Your task to perform on an android device: open a new tab in the chrome app Image 0: 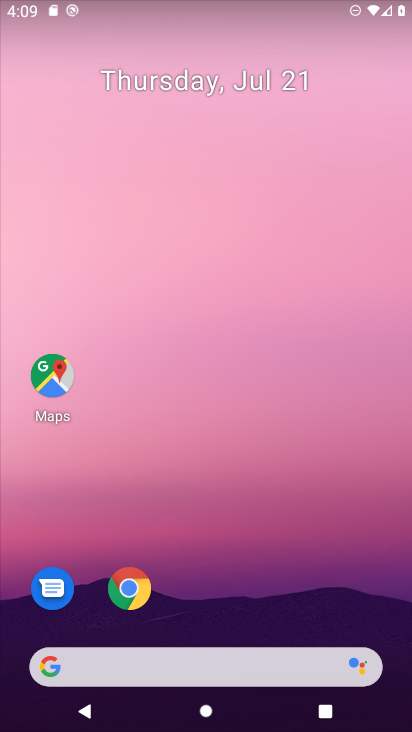
Step 0: drag from (199, 649) to (217, 91)
Your task to perform on an android device: open a new tab in the chrome app Image 1: 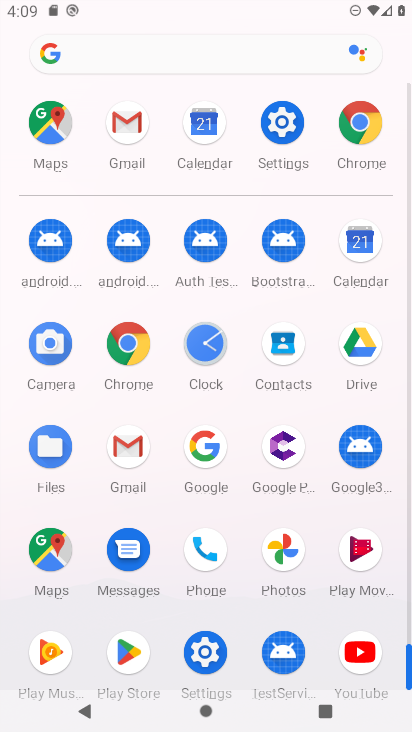
Step 1: click (129, 370)
Your task to perform on an android device: open a new tab in the chrome app Image 2: 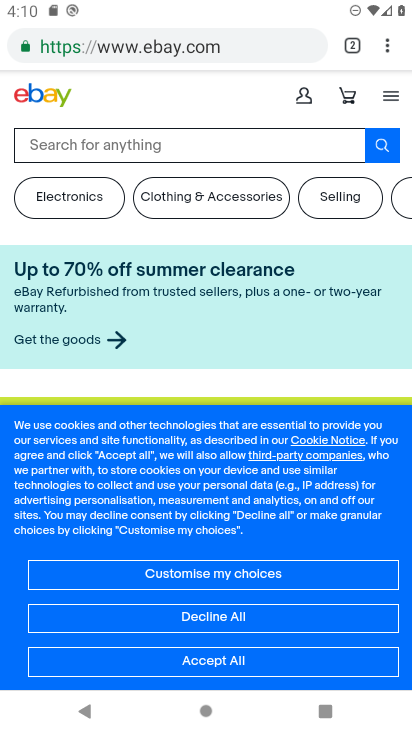
Step 2: task complete